Your task to perform on an android device: Search for Italian restaurants on Maps Image 0: 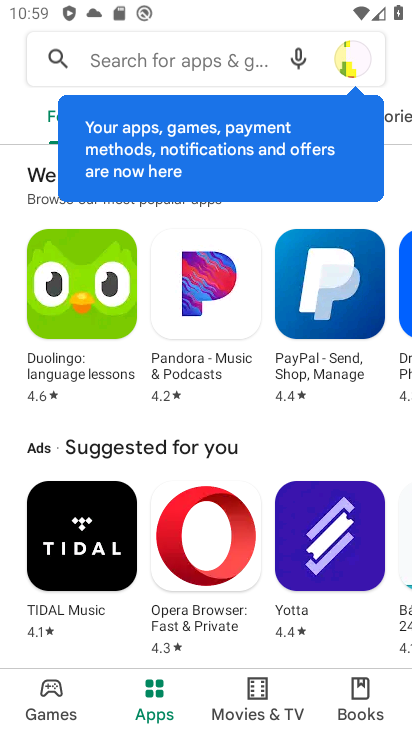
Step 0: press home button
Your task to perform on an android device: Search for Italian restaurants on Maps Image 1: 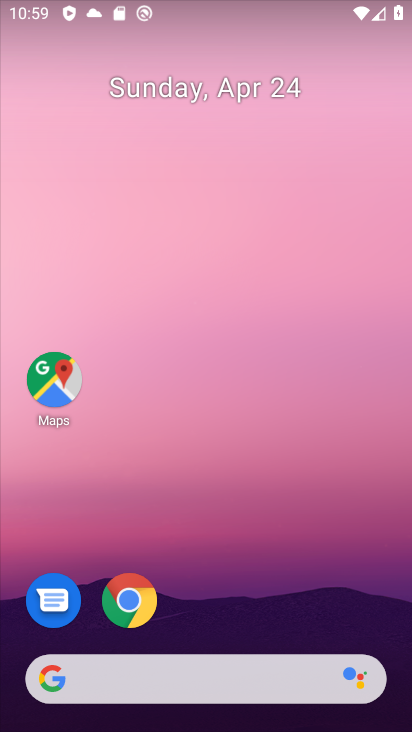
Step 1: click (53, 387)
Your task to perform on an android device: Search for Italian restaurants on Maps Image 2: 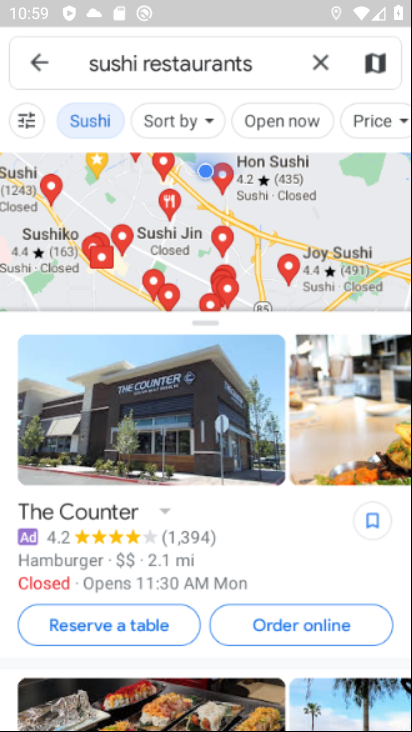
Step 2: click (309, 54)
Your task to perform on an android device: Search for Italian restaurants on Maps Image 3: 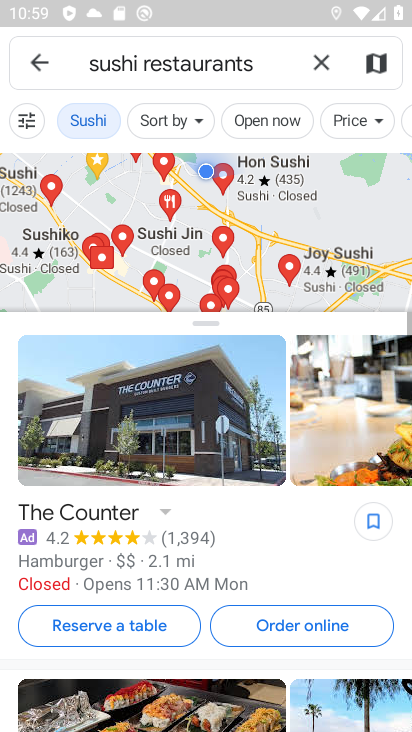
Step 3: click (321, 57)
Your task to perform on an android device: Search for Italian restaurants on Maps Image 4: 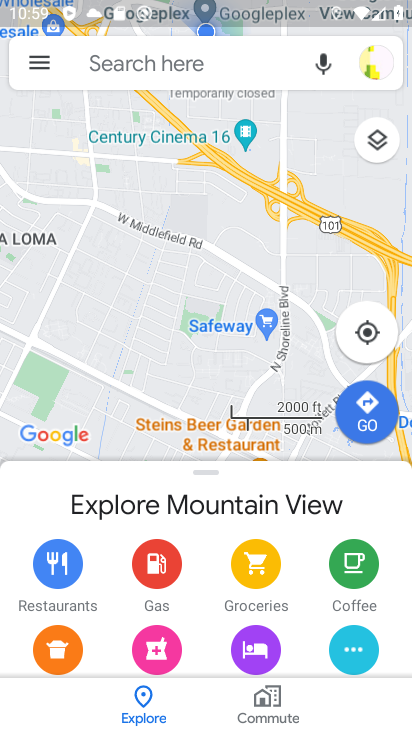
Step 4: click (143, 54)
Your task to perform on an android device: Search for Italian restaurants on Maps Image 5: 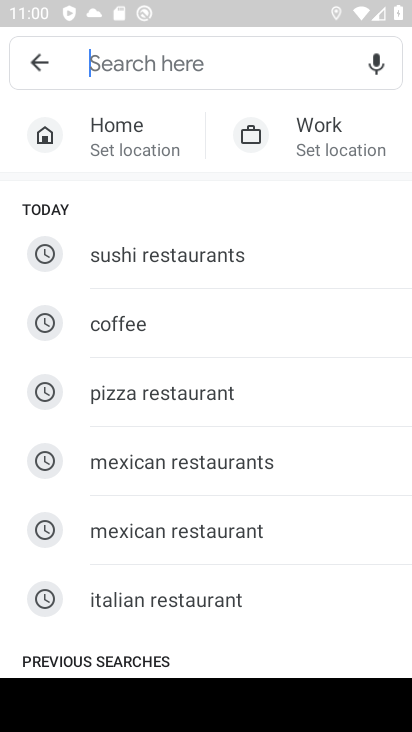
Step 5: click (224, 600)
Your task to perform on an android device: Search for Italian restaurants on Maps Image 6: 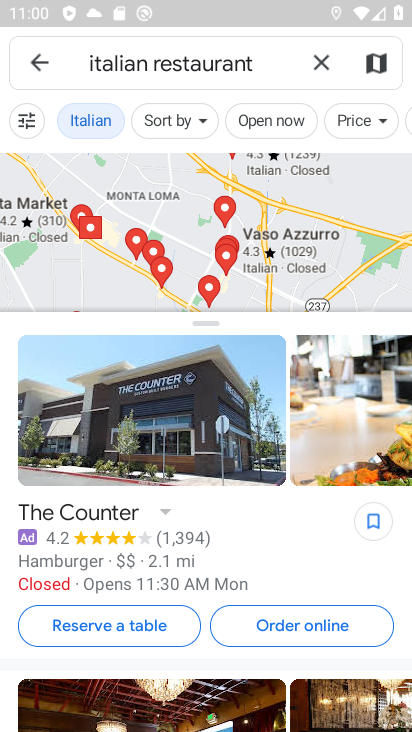
Step 6: task complete